Your task to perform on an android device: Search for vegetarian restaurants on Maps Image 0: 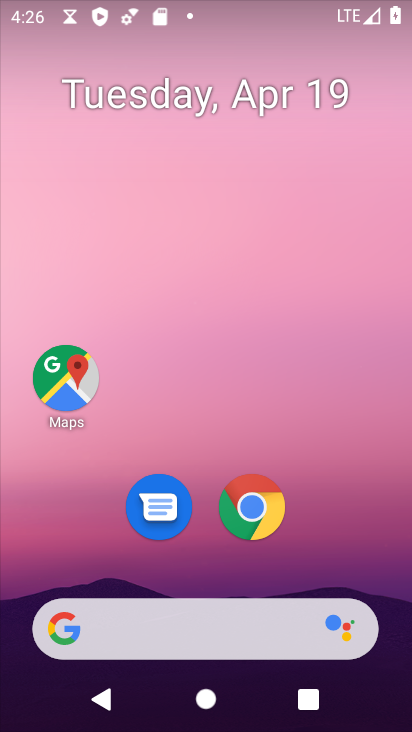
Step 0: drag from (310, 558) to (327, 71)
Your task to perform on an android device: Search for vegetarian restaurants on Maps Image 1: 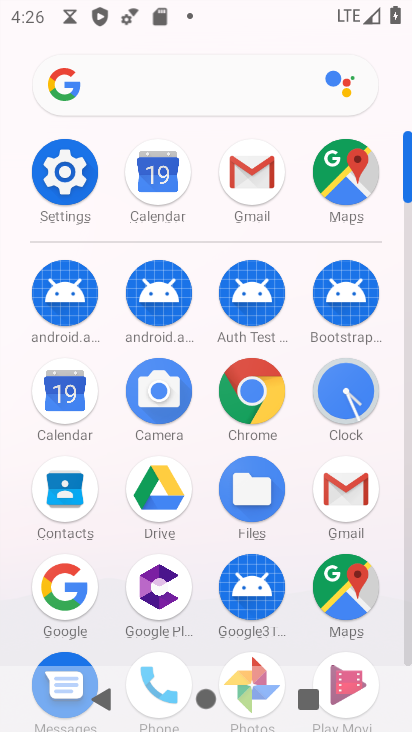
Step 1: click (351, 169)
Your task to perform on an android device: Search for vegetarian restaurants on Maps Image 2: 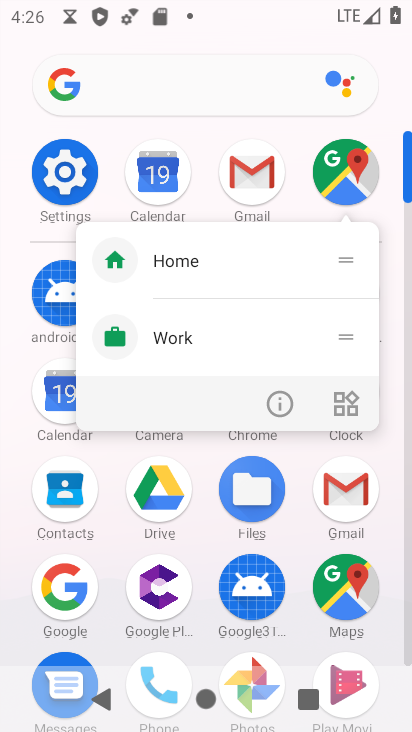
Step 2: click (351, 169)
Your task to perform on an android device: Search for vegetarian restaurants on Maps Image 3: 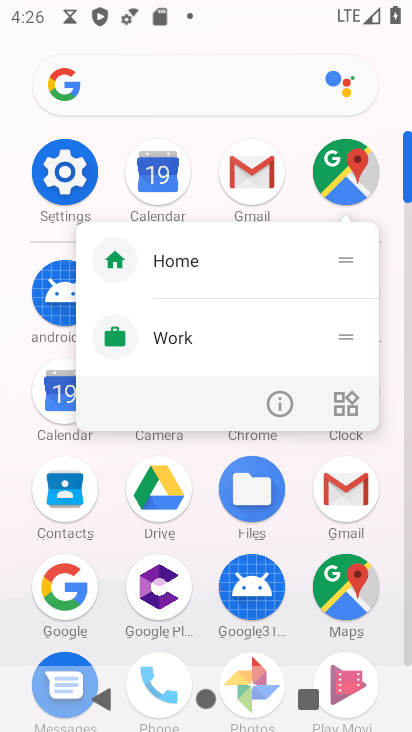
Step 3: click (351, 169)
Your task to perform on an android device: Search for vegetarian restaurants on Maps Image 4: 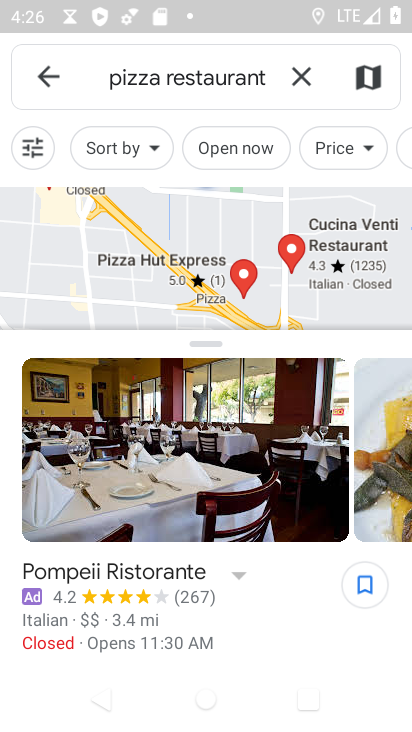
Step 4: click (292, 70)
Your task to perform on an android device: Search for vegetarian restaurants on Maps Image 5: 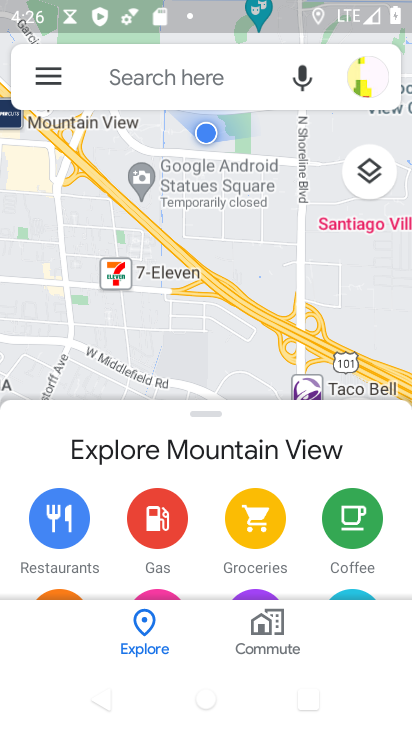
Step 5: click (227, 64)
Your task to perform on an android device: Search for vegetarian restaurants on Maps Image 6: 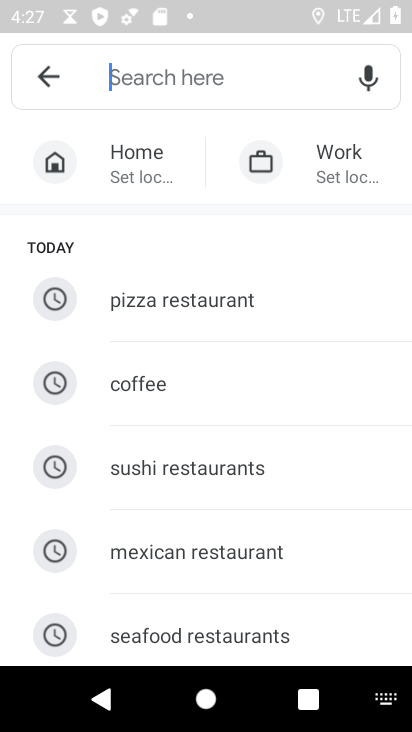
Step 6: type "vegetarian restaurants"
Your task to perform on an android device: Search for vegetarian restaurants on Maps Image 7: 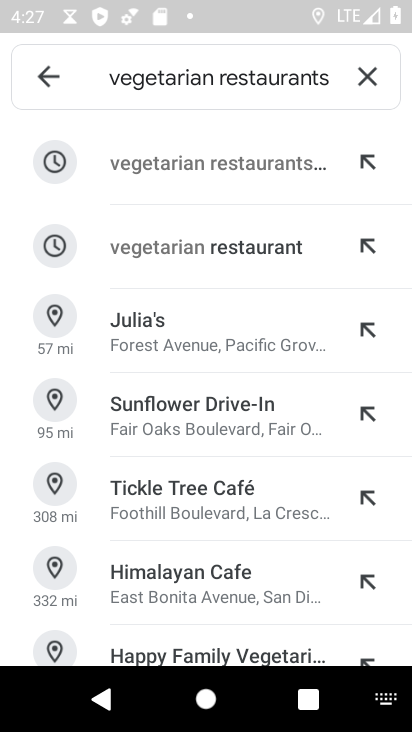
Step 7: click (173, 173)
Your task to perform on an android device: Search for vegetarian restaurants on Maps Image 8: 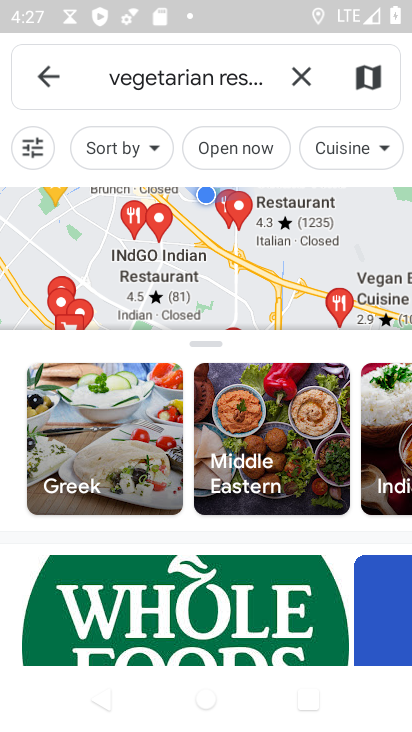
Step 8: task complete